Your task to perform on an android device: find which apps use the phone's location Image 0: 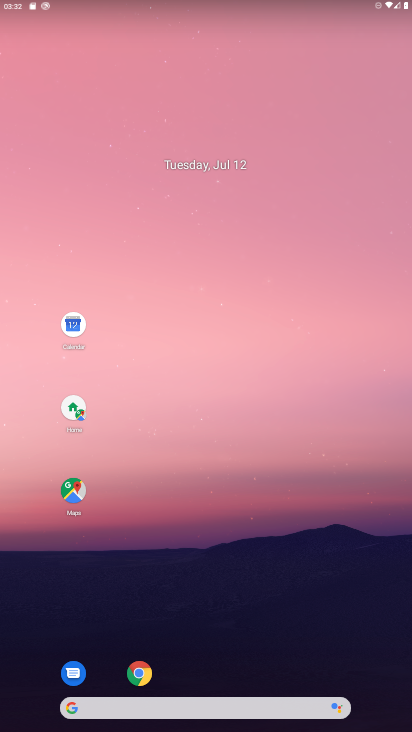
Step 0: drag from (265, 595) to (274, 199)
Your task to perform on an android device: find which apps use the phone's location Image 1: 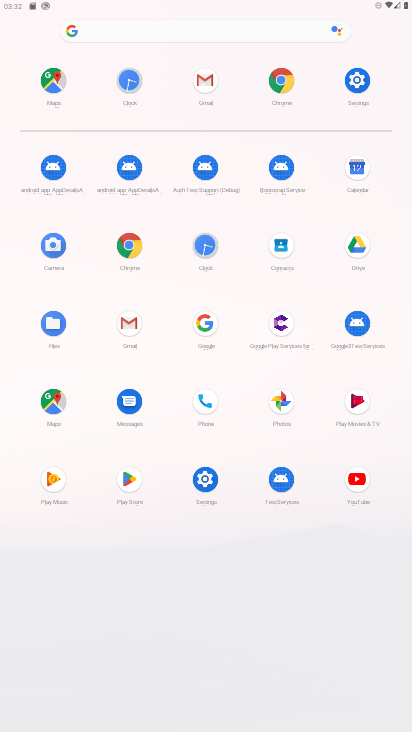
Step 1: click (361, 77)
Your task to perform on an android device: find which apps use the phone's location Image 2: 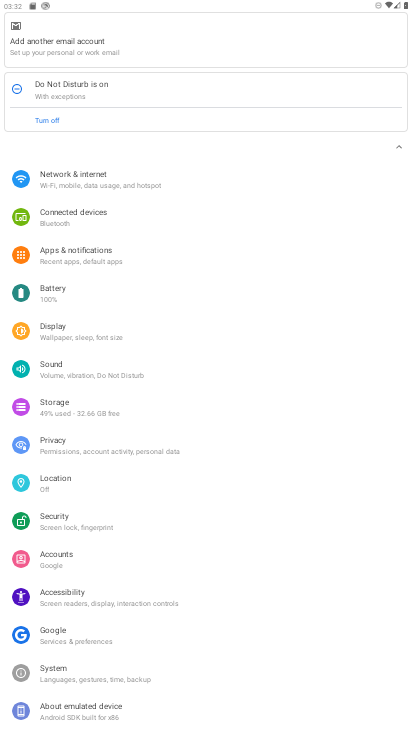
Step 2: click (49, 473)
Your task to perform on an android device: find which apps use the phone's location Image 3: 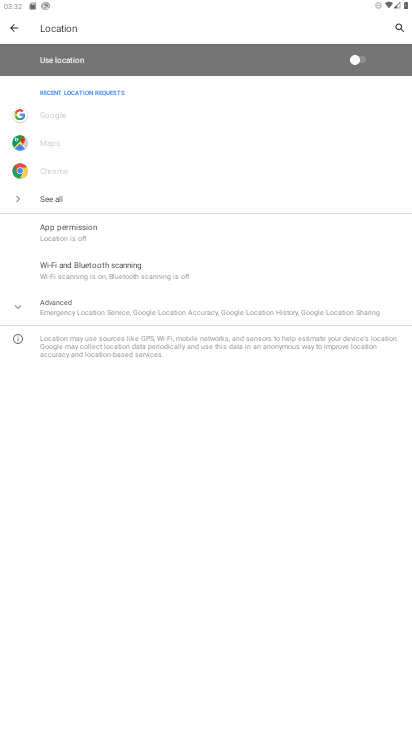
Step 3: click (126, 296)
Your task to perform on an android device: find which apps use the phone's location Image 4: 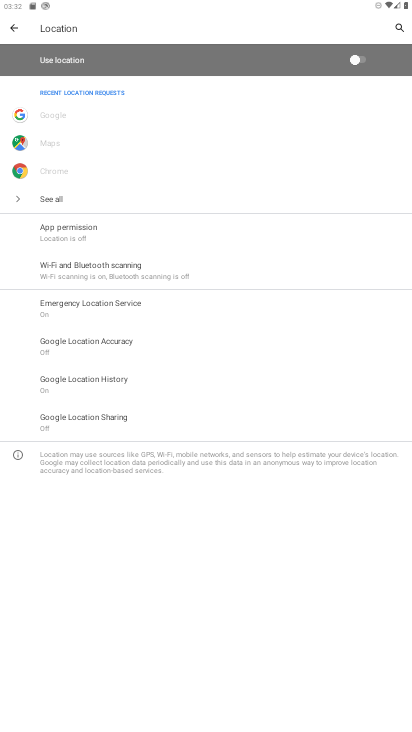
Step 4: task complete